Your task to perform on an android device: Go to sound settings Image 0: 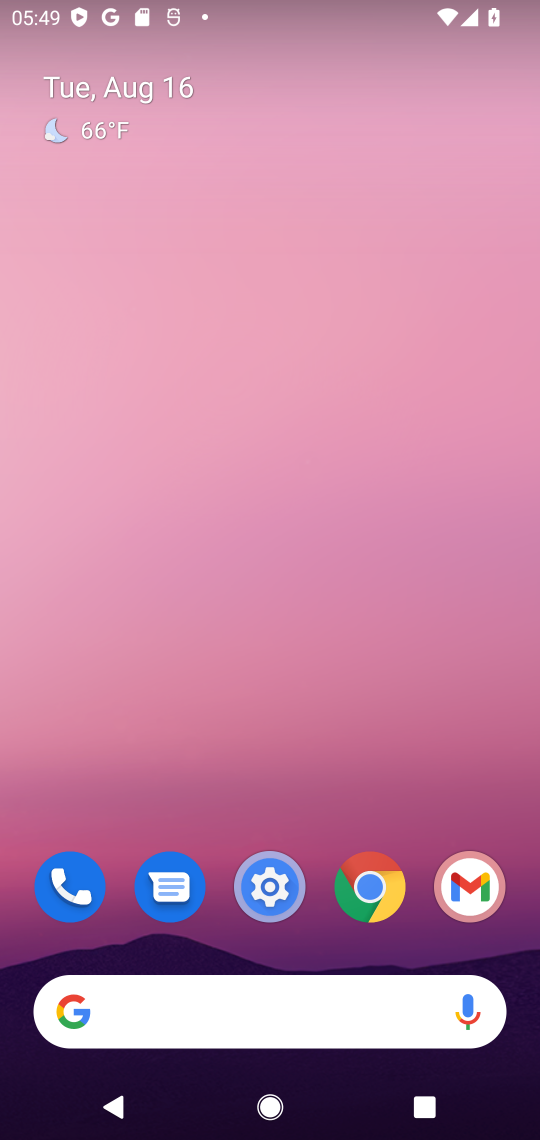
Step 0: drag from (378, 743) to (321, 23)
Your task to perform on an android device: Go to sound settings Image 1: 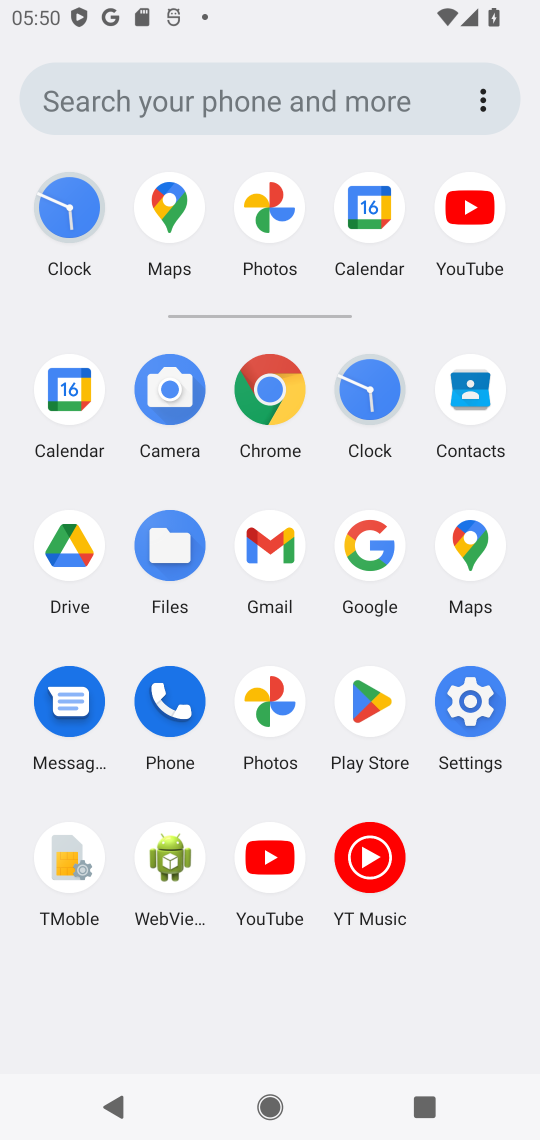
Step 1: click (488, 705)
Your task to perform on an android device: Go to sound settings Image 2: 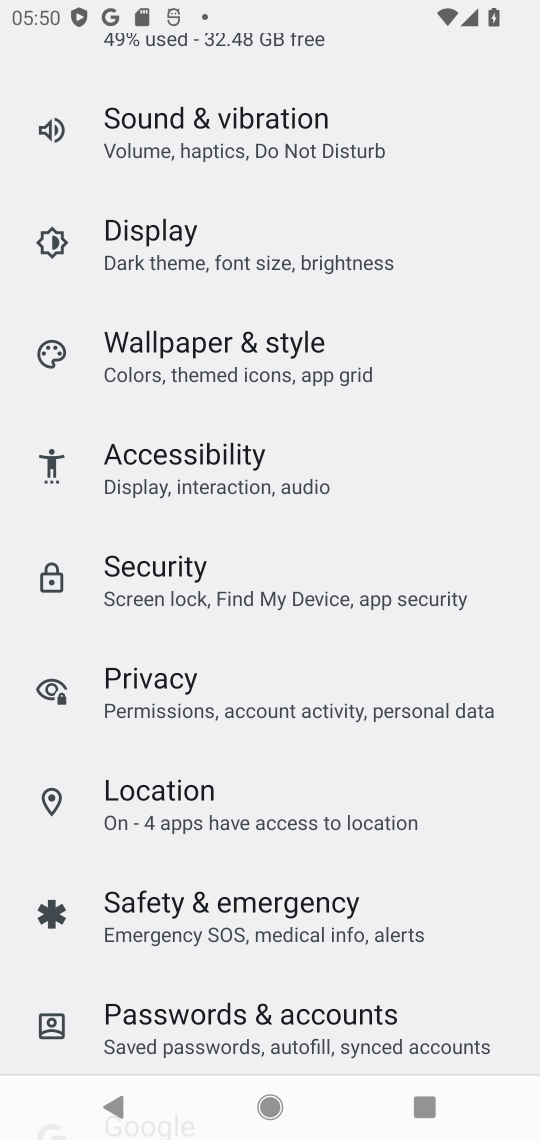
Step 2: click (265, 149)
Your task to perform on an android device: Go to sound settings Image 3: 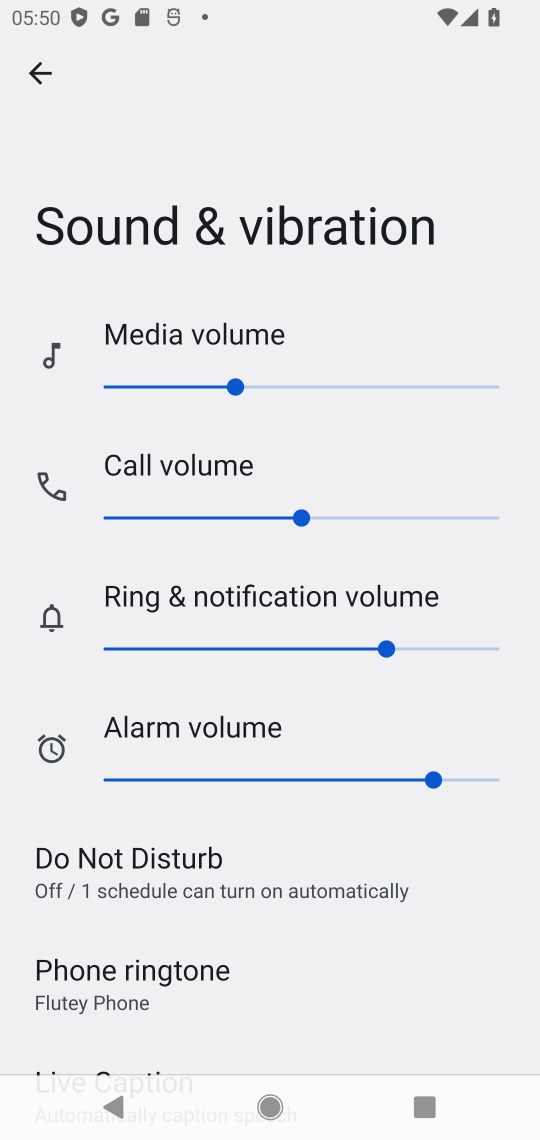
Step 3: task complete